Your task to perform on an android device: change the clock display to digital Image 0: 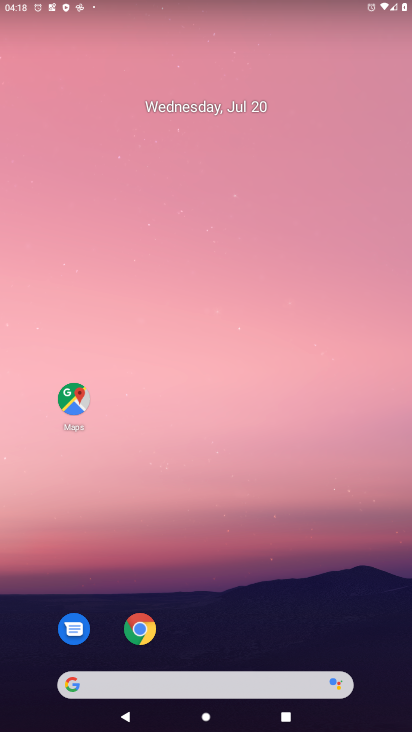
Step 0: drag from (380, 652) to (346, 121)
Your task to perform on an android device: change the clock display to digital Image 1: 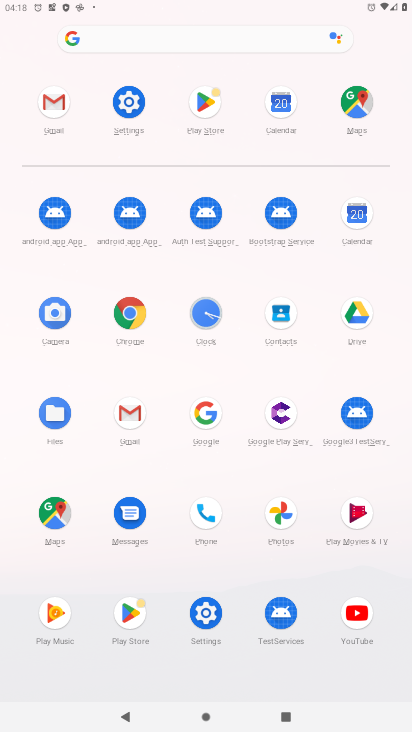
Step 1: click (203, 314)
Your task to perform on an android device: change the clock display to digital Image 2: 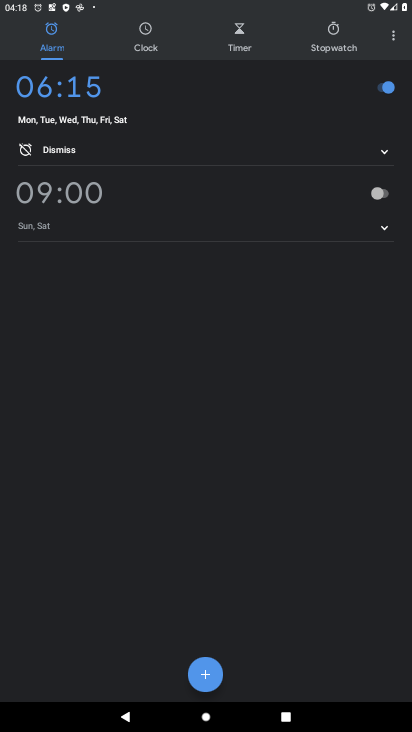
Step 2: click (391, 41)
Your task to perform on an android device: change the clock display to digital Image 3: 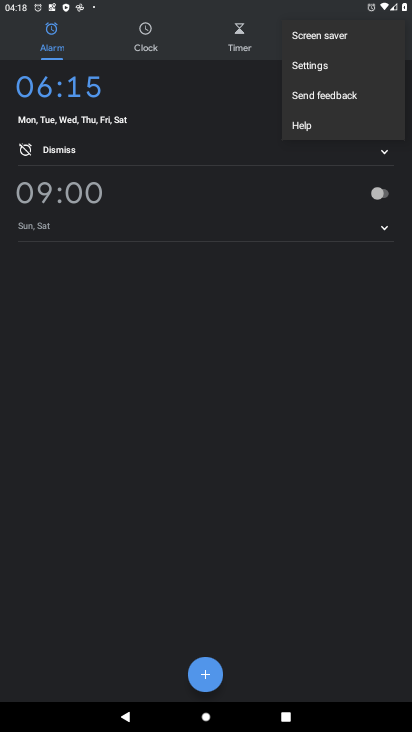
Step 3: click (323, 64)
Your task to perform on an android device: change the clock display to digital Image 4: 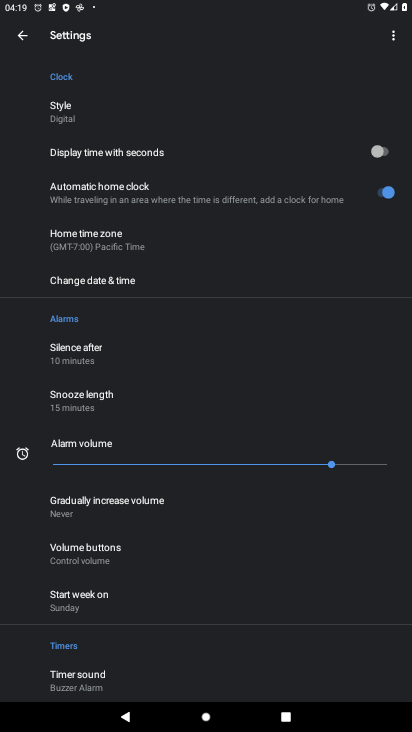
Step 4: task complete